Your task to perform on an android device: Open Google Chrome and click the shortcut for Amazon.com Image 0: 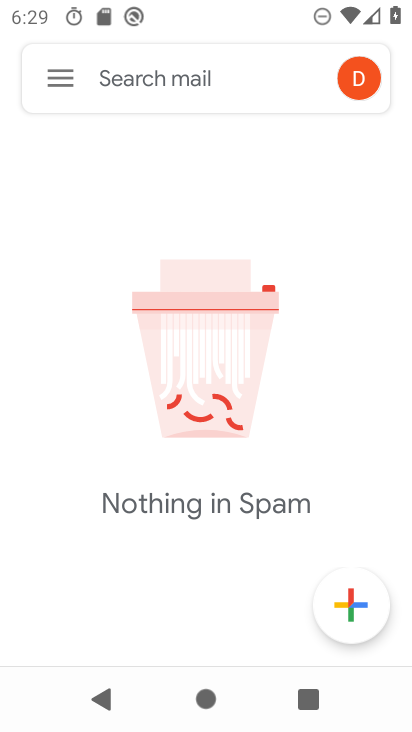
Step 0: press home button
Your task to perform on an android device: Open Google Chrome and click the shortcut for Amazon.com Image 1: 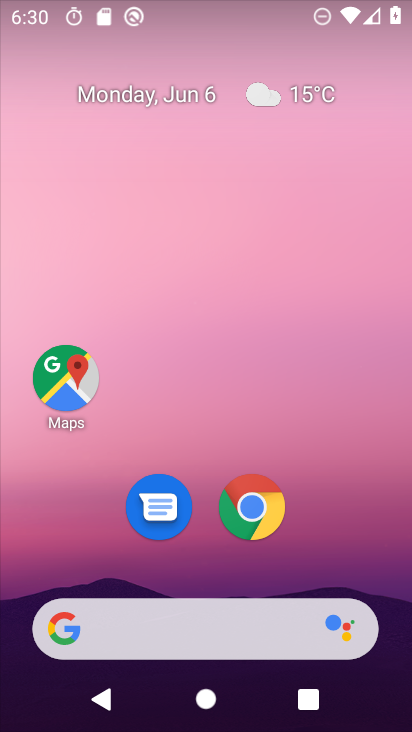
Step 1: click (254, 500)
Your task to perform on an android device: Open Google Chrome and click the shortcut for Amazon.com Image 2: 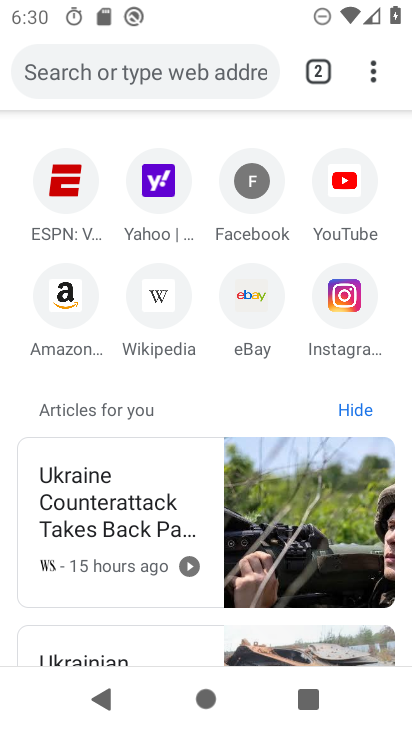
Step 2: click (51, 300)
Your task to perform on an android device: Open Google Chrome and click the shortcut for Amazon.com Image 3: 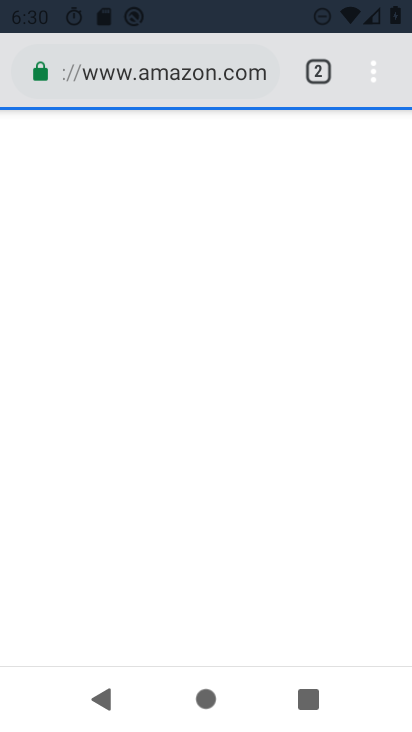
Step 3: task complete